Your task to perform on an android device: turn off javascript in the chrome app Image 0: 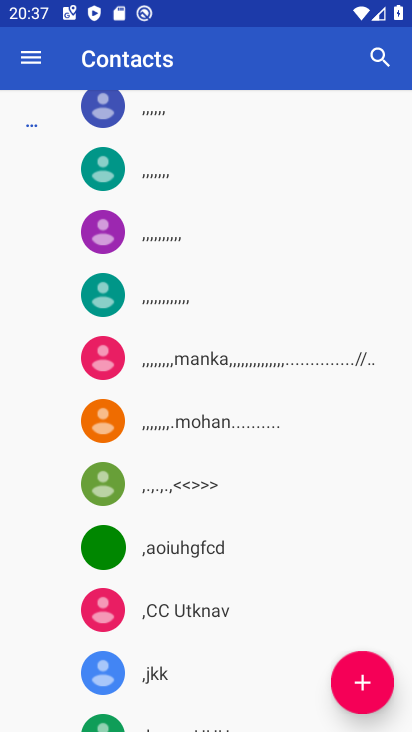
Step 0: press home button
Your task to perform on an android device: turn off javascript in the chrome app Image 1: 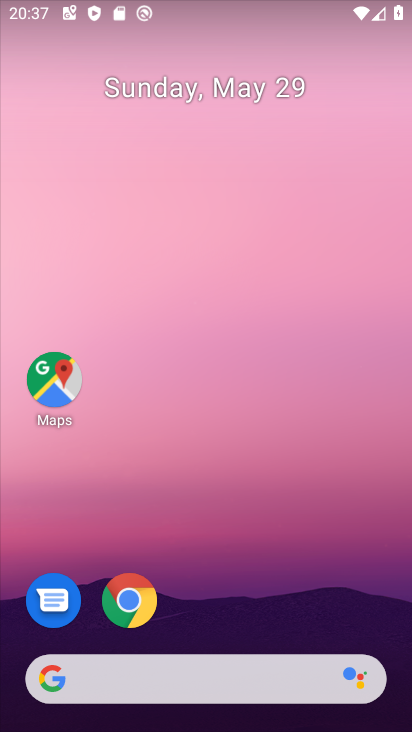
Step 1: drag from (370, 588) to (339, 190)
Your task to perform on an android device: turn off javascript in the chrome app Image 2: 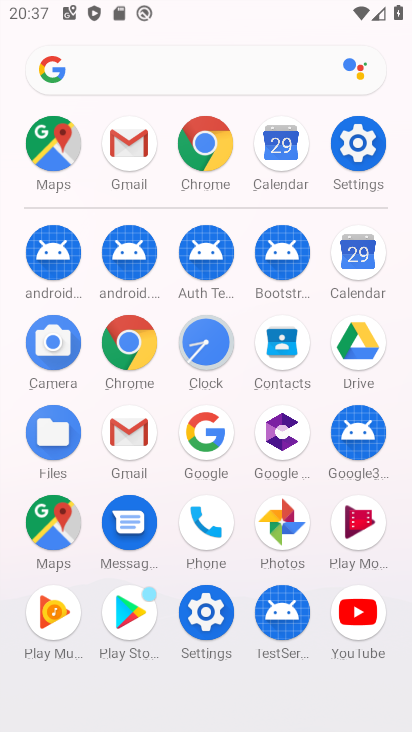
Step 2: click (145, 353)
Your task to perform on an android device: turn off javascript in the chrome app Image 3: 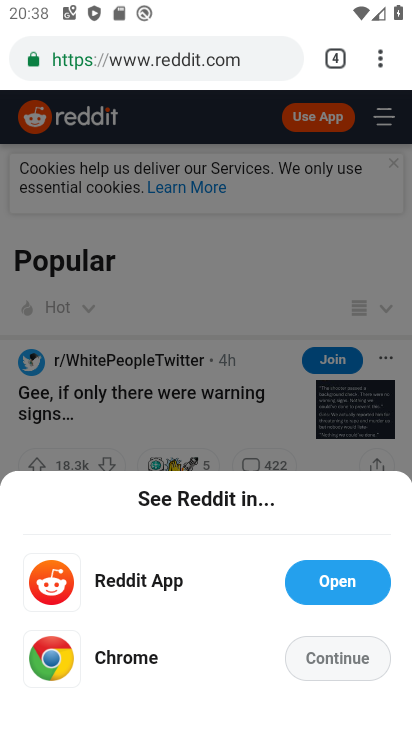
Step 3: drag from (378, 60) to (210, 636)
Your task to perform on an android device: turn off javascript in the chrome app Image 4: 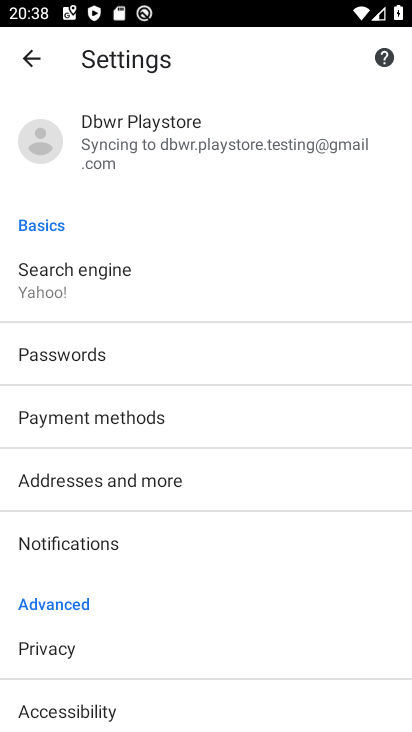
Step 4: drag from (224, 657) to (243, 253)
Your task to perform on an android device: turn off javascript in the chrome app Image 5: 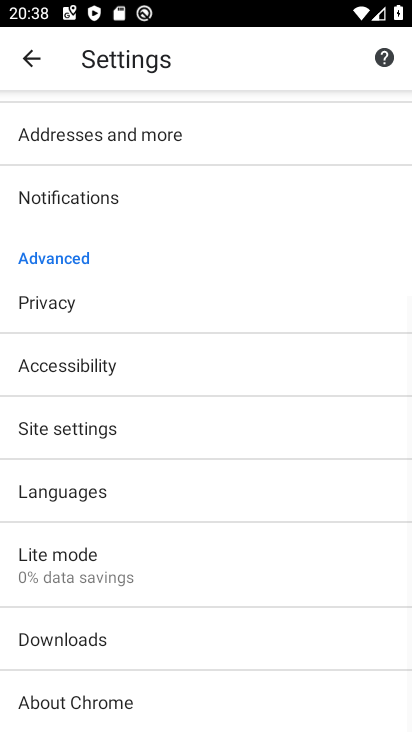
Step 5: drag from (201, 681) to (206, 343)
Your task to perform on an android device: turn off javascript in the chrome app Image 6: 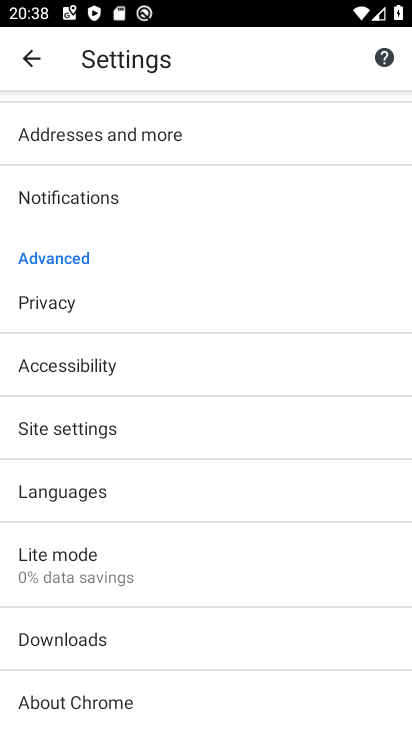
Step 6: click (98, 432)
Your task to perform on an android device: turn off javascript in the chrome app Image 7: 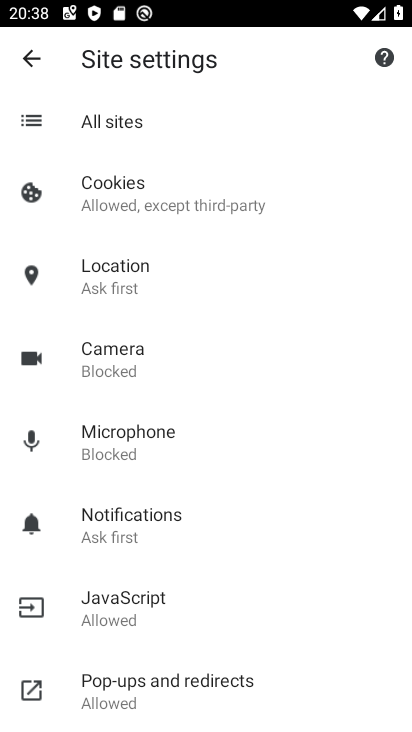
Step 7: click (158, 607)
Your task to perform on an android device: turn off javascript in the chrome app Image 8: 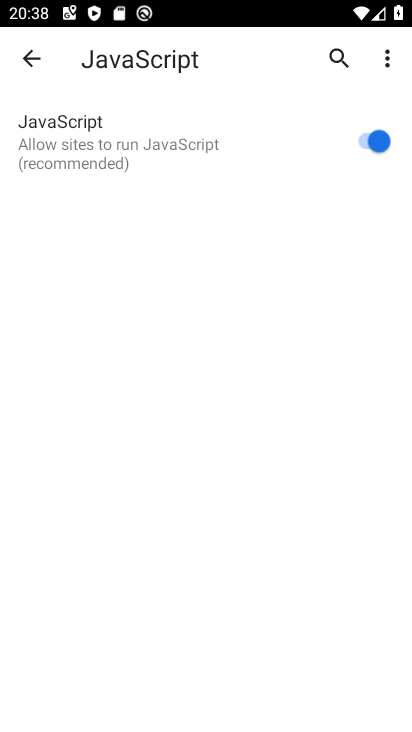
Step 8: click (371, 140)
Your task to perform on an android device: turn off javascript in the chrome app Image 9: 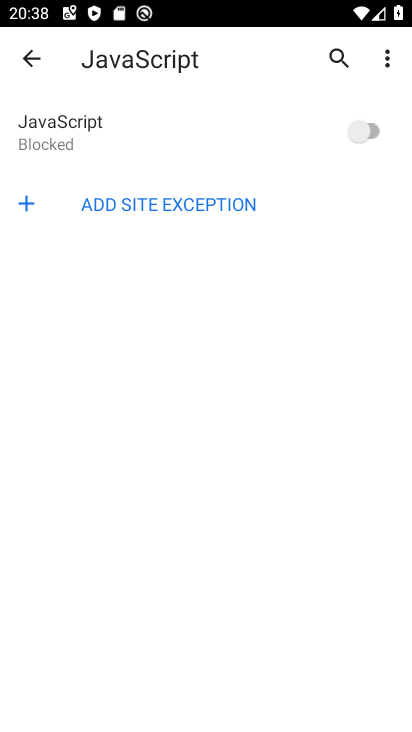
Step 9: task complete